Your task to perform on an android device: turn off sleep mode Image 0: 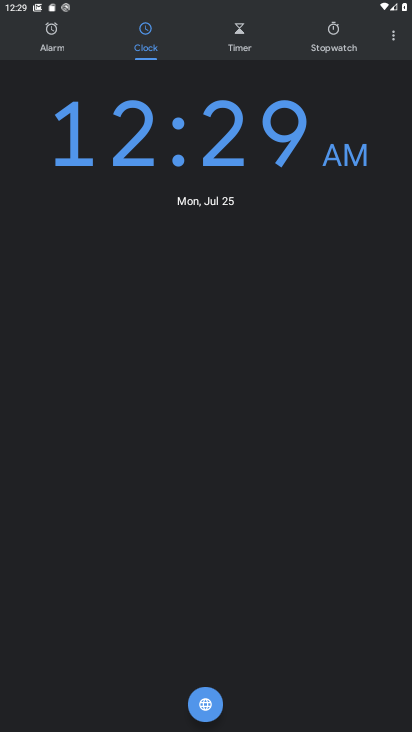
Step 0: press home button
Your task to perform on an android device: turn off sleep mode Image 1: 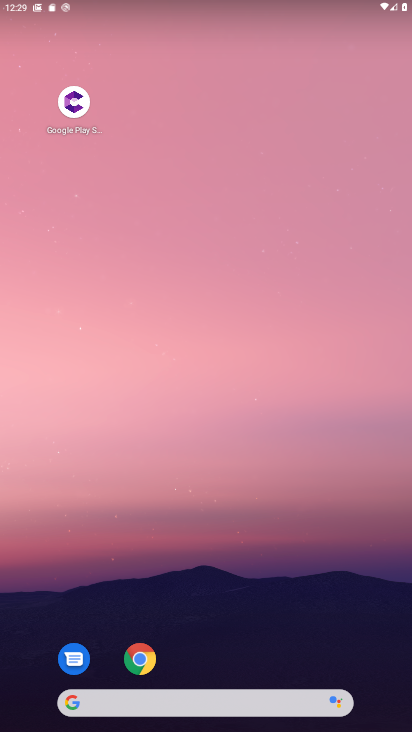
Step 1: drag from (305, 666) to (373, 92)
Your task to perform on an android device: turn off sleep mode Image 2: 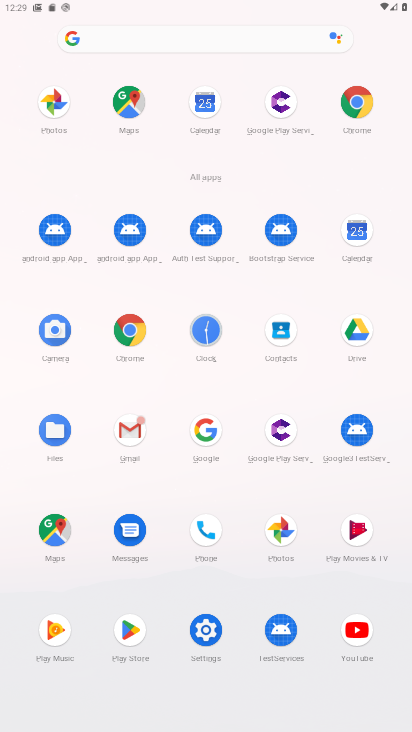
Step 2: click (209, 632)
Your task to perform on an android device: turn off sleep mode Image 3: 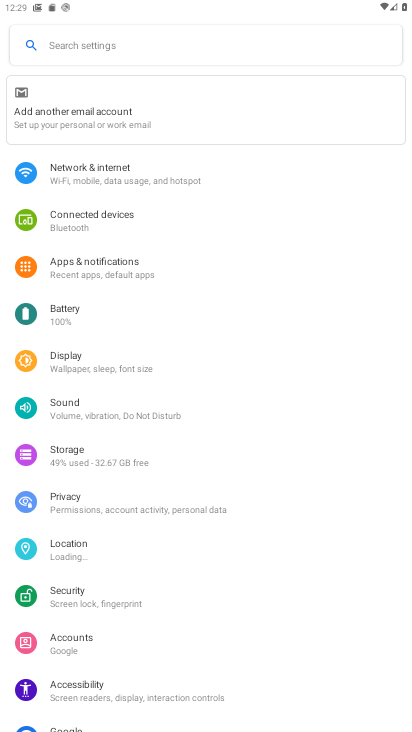
Step 3: click (174, 375)
Your task to perform on an android device: turn off sleep mode Image 4: 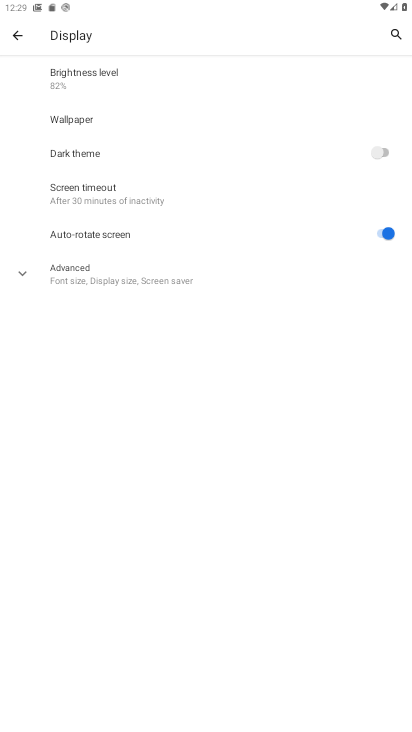
Step 4: task complete